Your task to perform on an android device: Go to privacy settings Image 0: 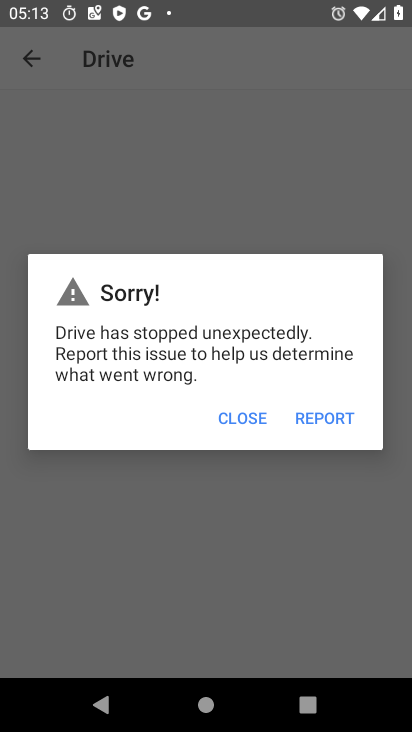
Step 0: press home button
Your task to perform on an android device: Go to privacy settings Image 1: 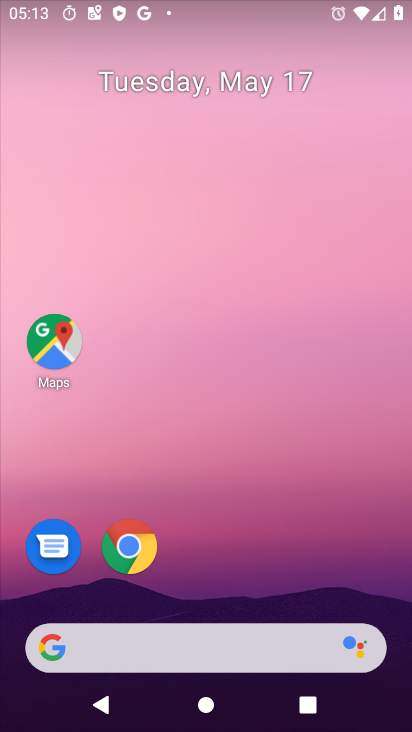
Step 1: click (130, 546)
Your task to perform on an android device: Go to privacy settings Image 2: 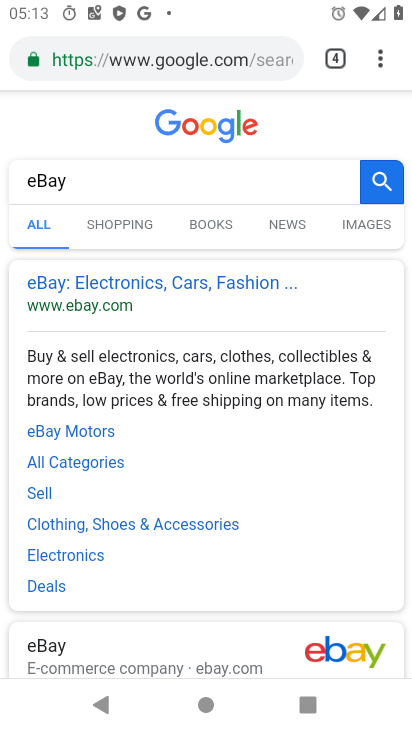
Step 2: click (382, 48)
Your task to perform on an android device: Go to privacy settings Image 3: 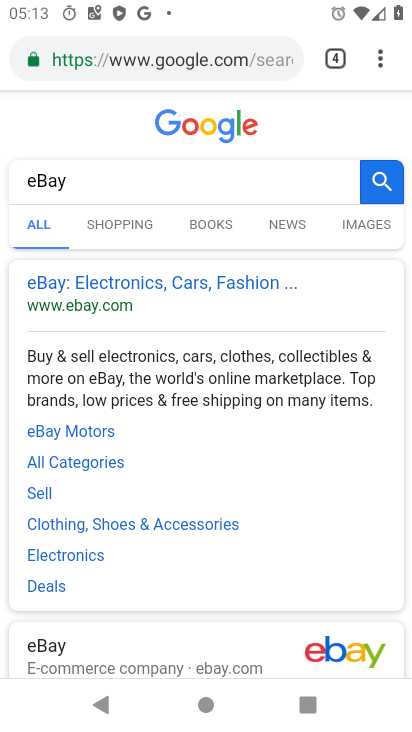
Step 3: click (378, 53)
Your task to perform on an android device: Go to privacy settings Image 4: 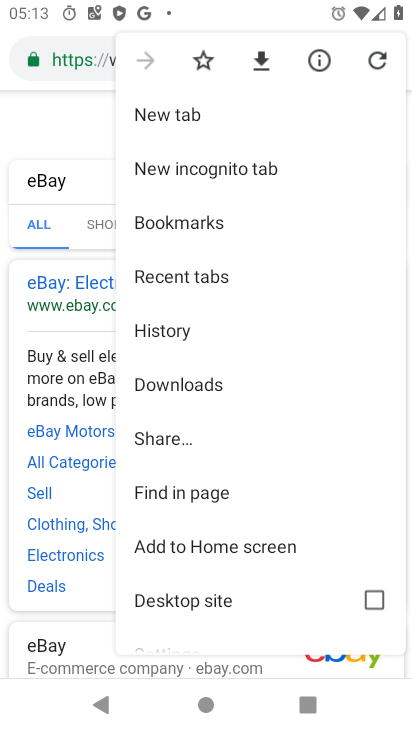
Step 4: drag from (298, 603) to (278, 376)
Your task to perform on an android device: Go to privacy settings Image 5: 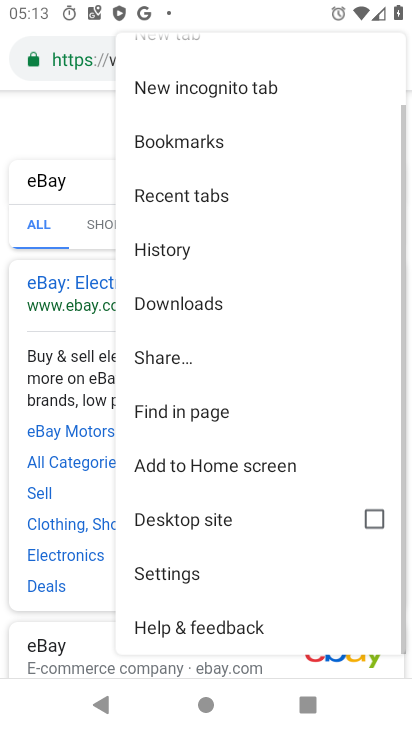
Step 5: drag from (286, 588) to (271, 348)
Your task to perform on an android device: Go to privacy settings Image 6: 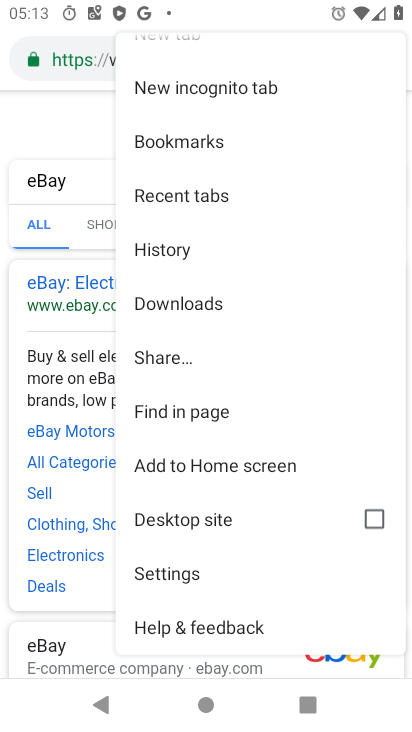
Step 6: click (146, 574)
Your task to perform on an android device: Go to privacy settings Image 7: 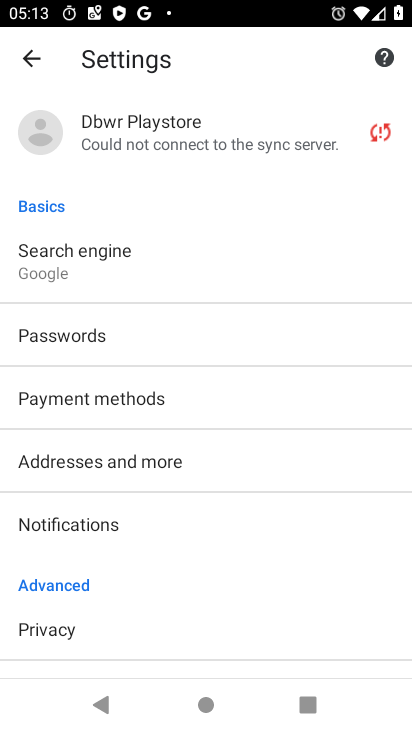
Step 7: drag from (194, 598) to (241, 434)
Your task to perform on an android device: Go to privacy settings Image 8: 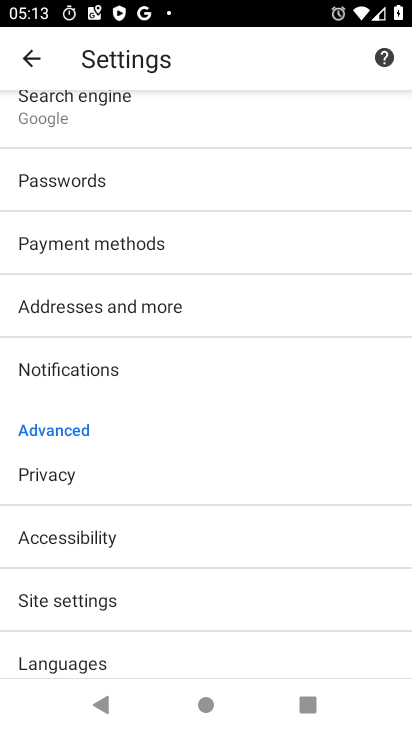
Step 8: click (54, 480)
Your task to perform on an android device: Go to privacy settings Image 9: 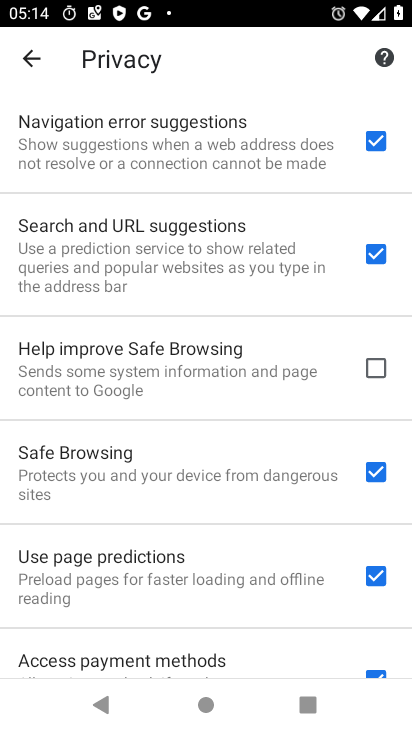
Step 9: task complete